Your task to perform on an android device: turn on bluetooth scan Image 0: 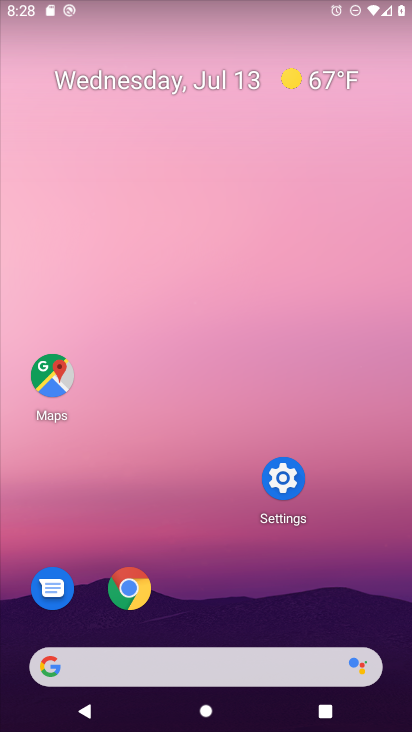
Step 0: press home button
Your task to perform on an android device: turn on bluetooth scan Image 1: 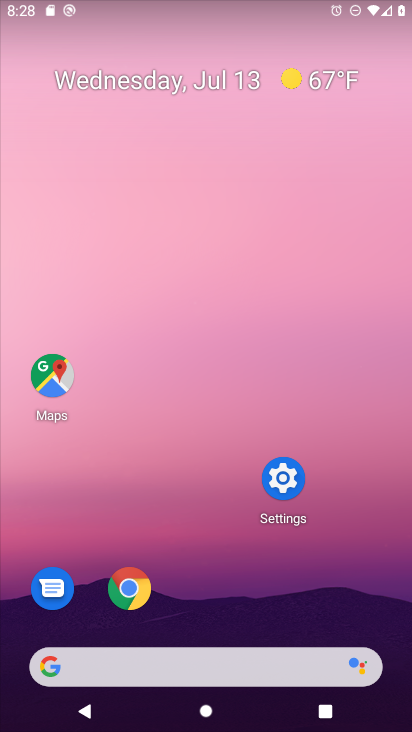
Step 1: click (298, 481)
Your task to perform on an android device: turn on bluetooth scan Image 2: 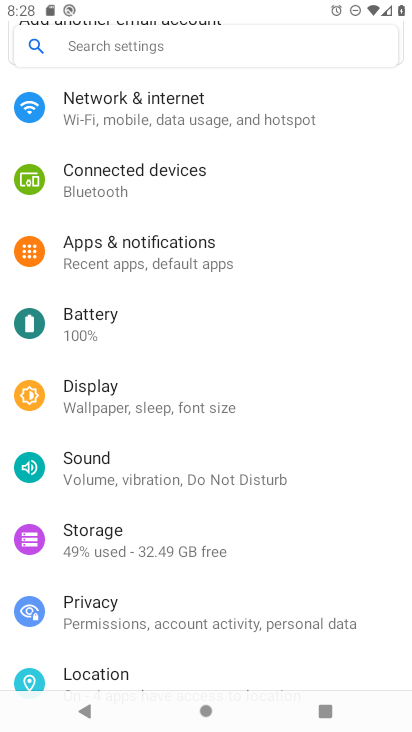
Step 2: click (135, 55)
Your task to perform on an android device: turn on bluetooth scan Image 3: 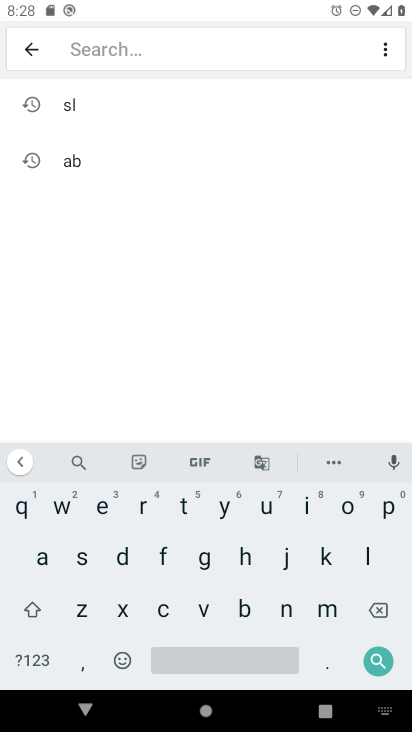
Step 3: click (364, 561)
Your task to perform on an android device: turn on bluetooth scan Image 4: 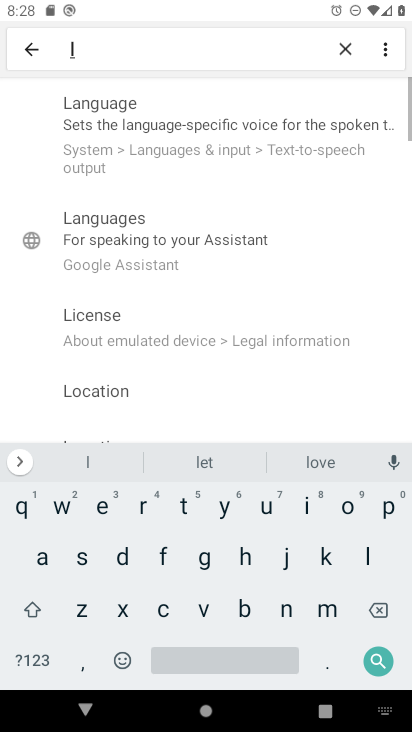
Step 4: click (347, 517)
Your task to perform on an android device: turn on bluetooth scan Image 5: 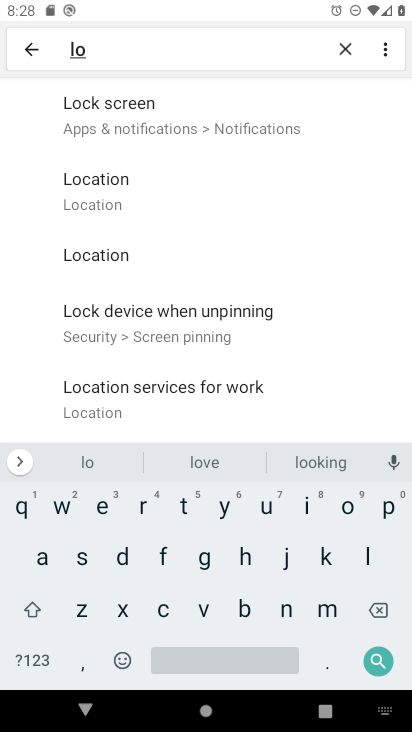
Step 5: click (135, 202)
Your task to perform on an android device: turn on bluetooth scan Image 6: 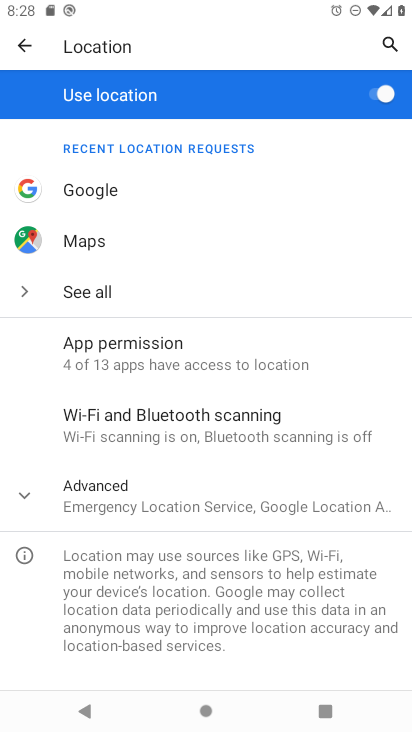
Step 6: click (146, 430)
Your task to perform on an android device: turn on bluetooth scan Image 7: 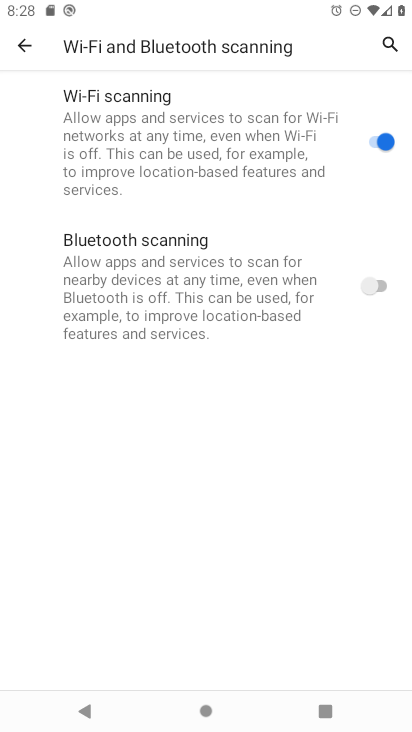
Step 7: click (361, 288)
Your task to perform on an android device: turn on bluetooth scan Image 8: 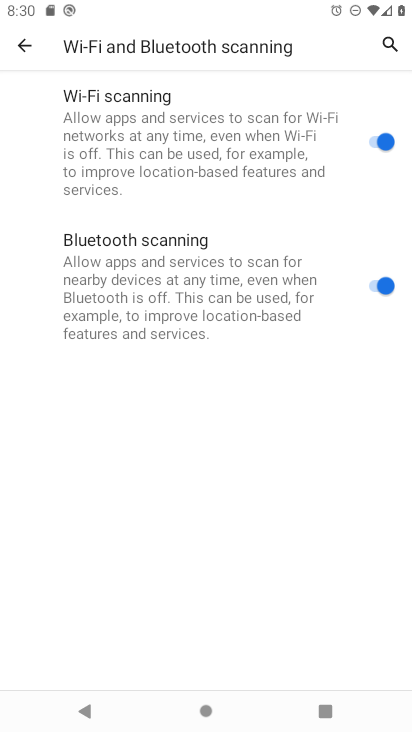
Step 8: task complete